Your task to perform on an android device: manage bookmarks in the chrome app Image 0: 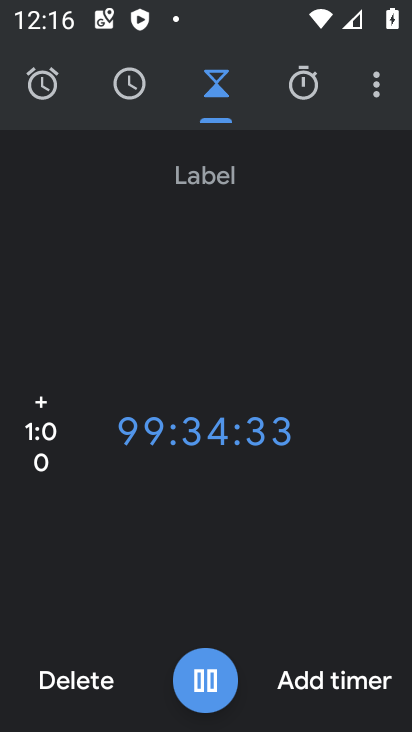
Step 0: press home button
Your task to perform on an android device: manage bookmarks in the chrome app Image 1: 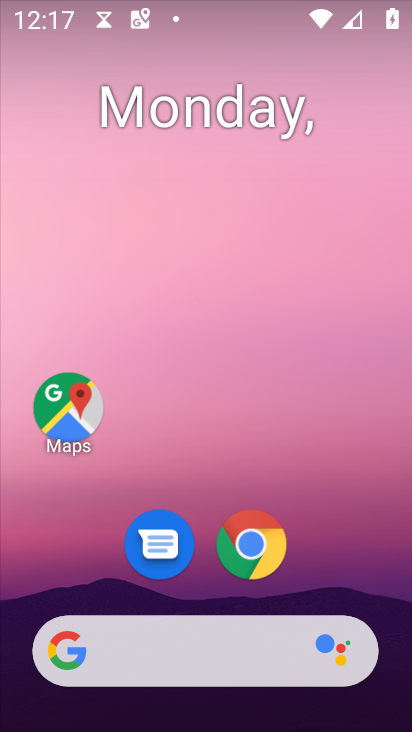
Step 1: click (233, 545)
Your task to perform on an android device: manage bookmarks in the chrome app Image 2: 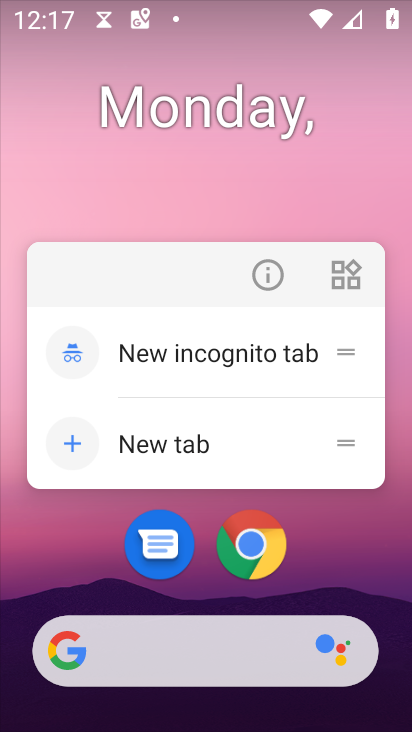
Step 2: click (236, 544)
Your task to perform on an android device: manage bookmarks in the chrome app Image 3: 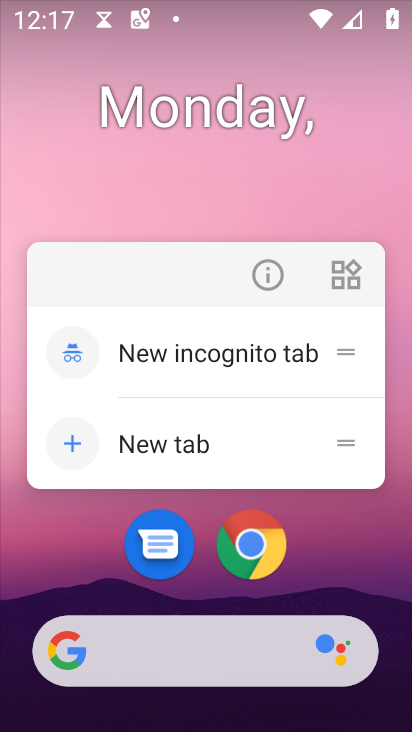
Step 3: click (256, 539)
Your task to perform on an android device: manage bookmarks in the chrome app Image 4: 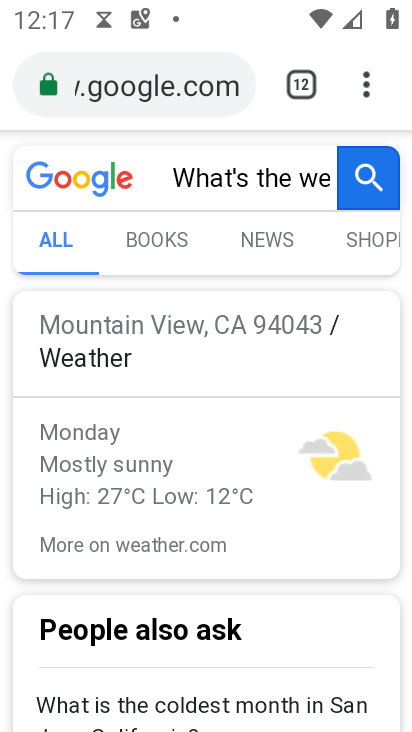
Step 4: click (375, 80)
Your task to perform on an android device: manage bookmarks in the chrome app Image 5: 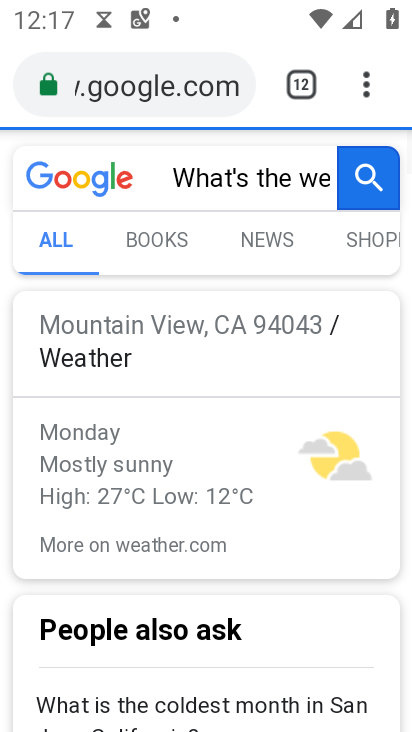
Step 5: click (371, 85)
Your task to perform on an android device: manage bookmarks in the chrome app Image 6: 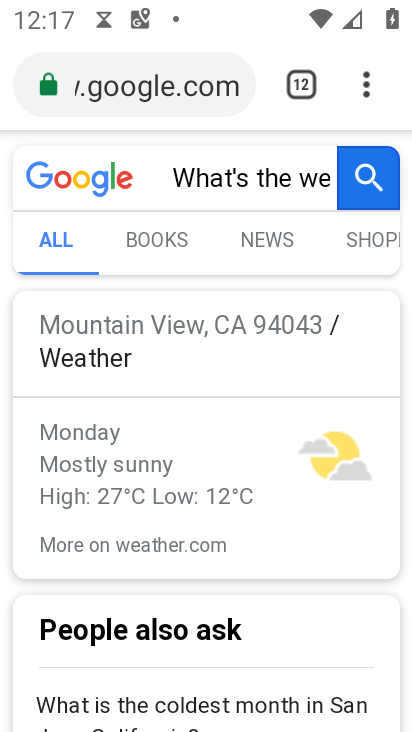
Step 6: click (371, 85)
Your task to perform on an android device: manage bookmarks in the chrome app Image 7: 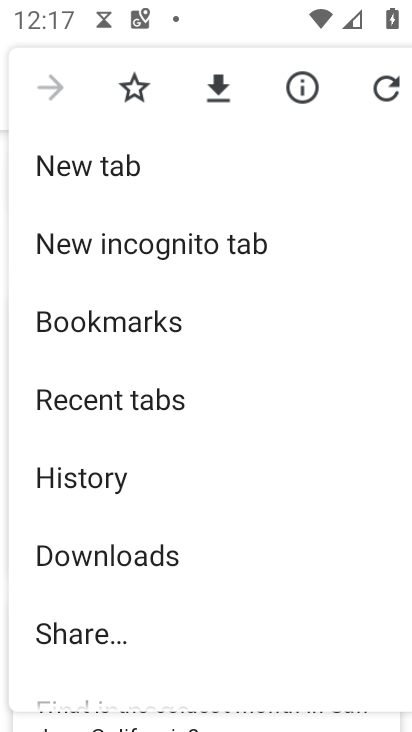
Step 7: click (168, 326)
Your task to perform on an android device: manage bookmarks in the chrome app Image 8: 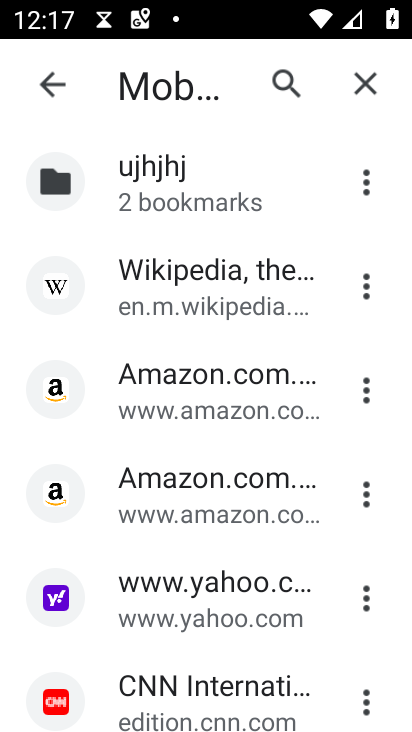
Step 8: click (154, 392)
Your task to perform on an android device: manage bookmarks in the chrome app Image 9: 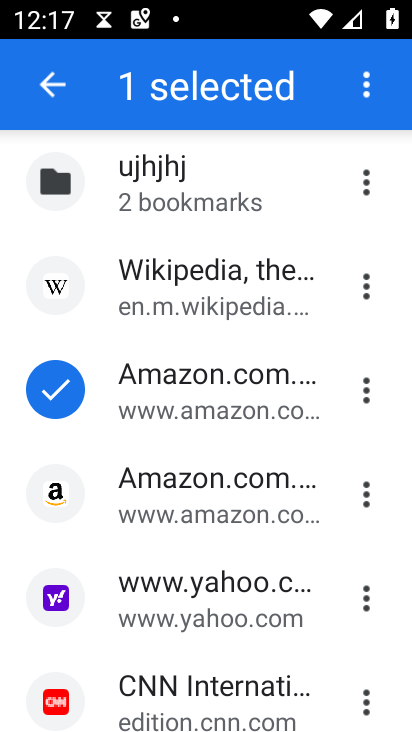
Step 9: click (371, 82)
Your task to perform on an android device: manage bookmarks in the chrome app Image 10: 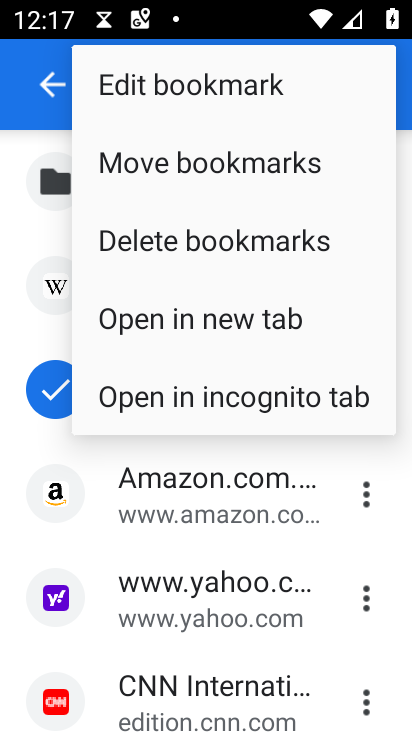
Step 10: click (226, 170)
Your task to perform on an android device: manage bookmarks in the chrome app Image 11: 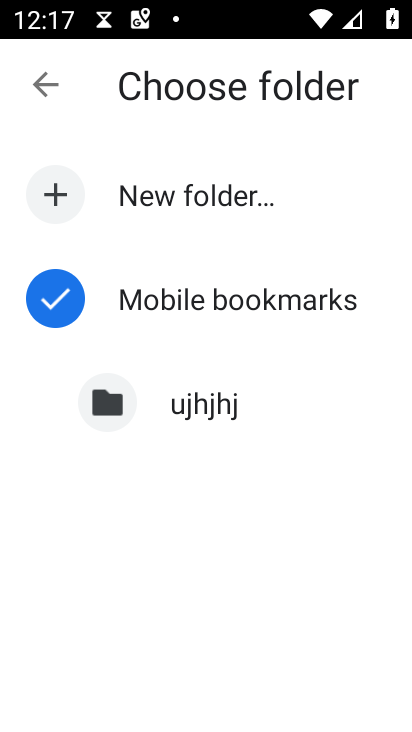
Step 11: click (156, 407)
Your task to perform on an android device: manage bookmarks in the chrome app Image 12: 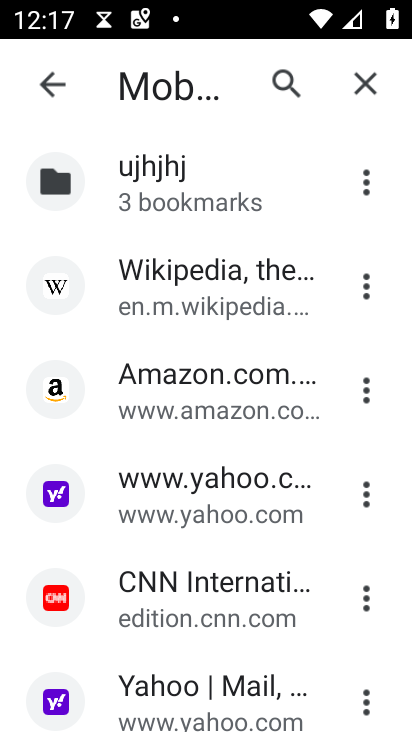
Step 12: task complete